Your task to perform on an android device: Open Chrome and go to the settings page Image 0: 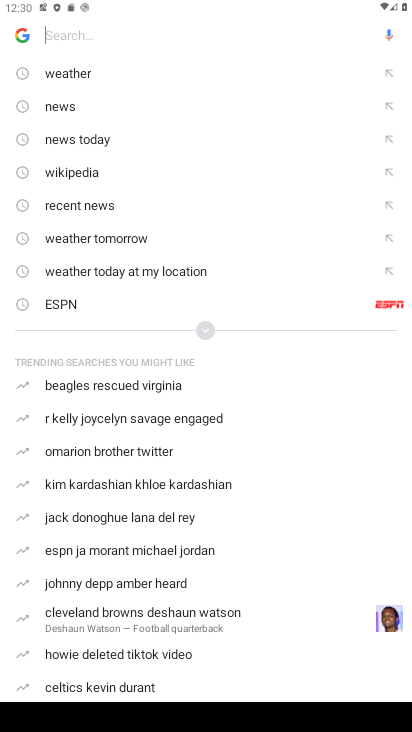
Step 0: press home button
Your task to perform on an android device: Open Chrome and go to the settings page Image 1: 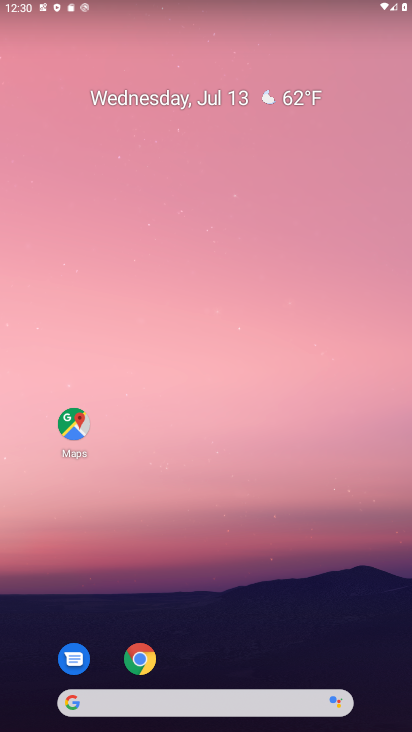
Step 1: drag from (204, 701) to (256, 157)
Your task to perform on an android device: Open Chrome and go to the settings page Image 2: 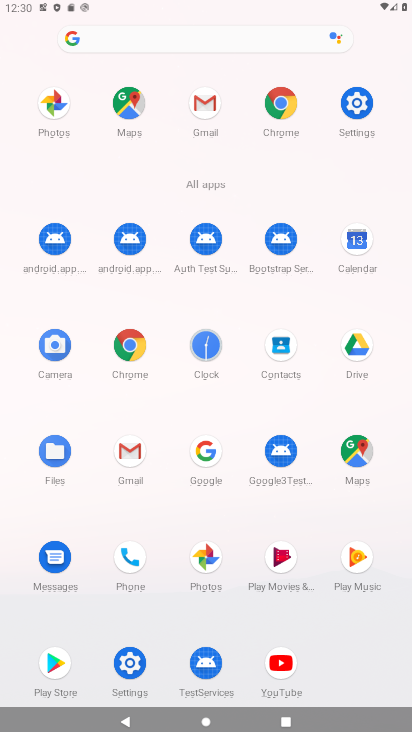
Step 2: click (283, 101)
Your task to perform on an android device: Open Chrome and go to the settings page Image 3: 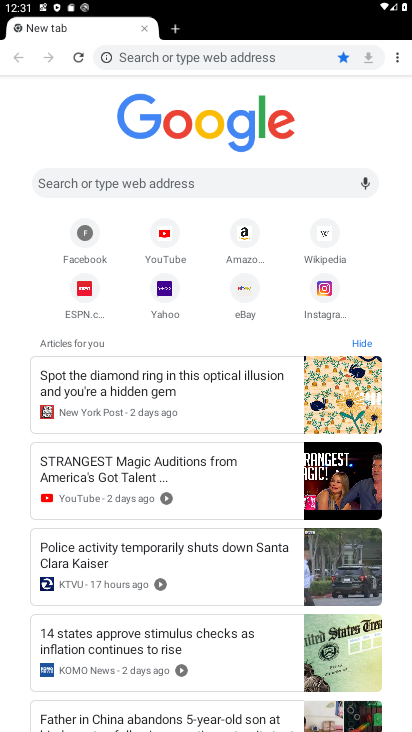
Step 3: click (400, 62)
Your task to perform on an android device: Open Chrome and go to the settings page Image 4: 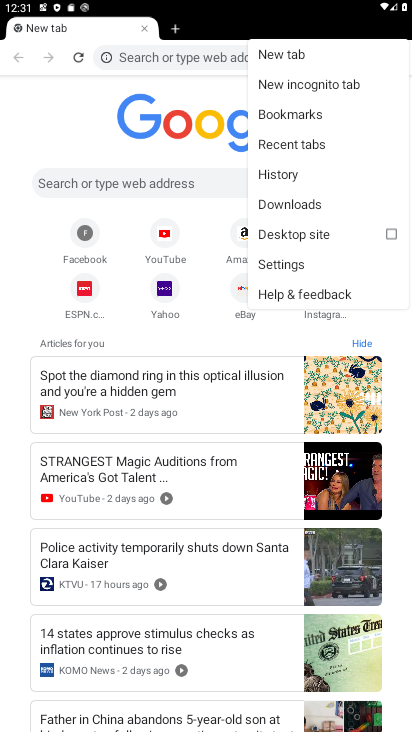
Step 4: click (288, 263)
Your task to perform on an android device: Open Chrome and go to the settings page Image 5: 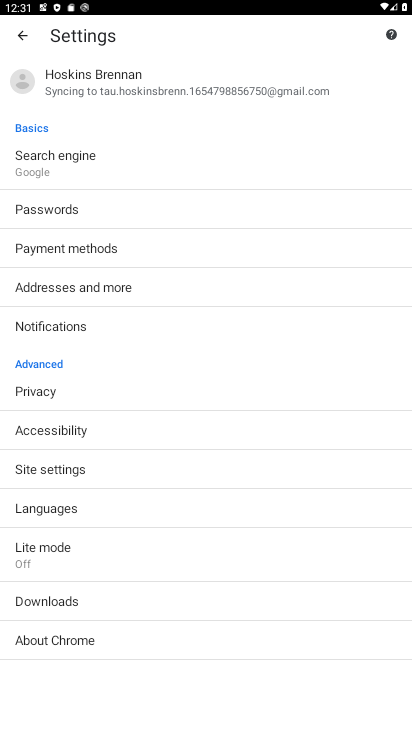
Step 5: task complete